Your task to perform on an android device: turn off javascript in the chrome app Image 0: 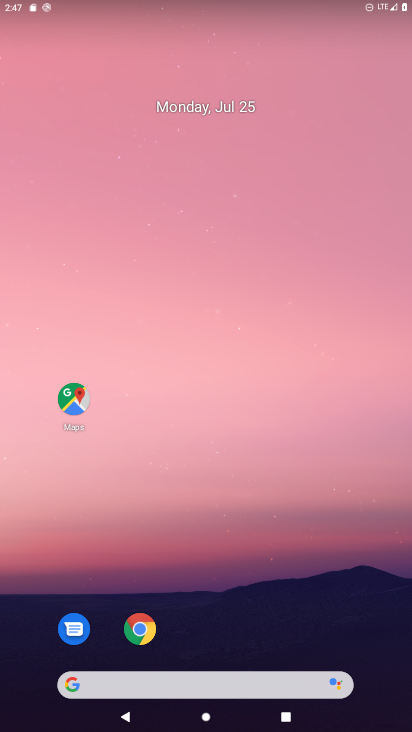
Step 0: click (152, 625)
Your task to perform on an android device: turn off javascript in the chrome app Image 1: 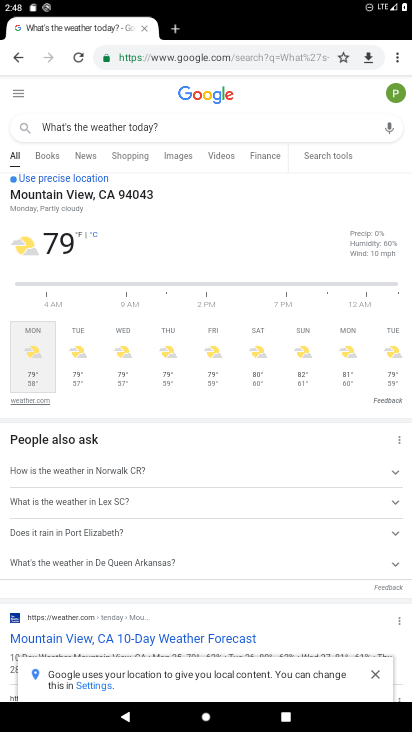
Step 1: drag from (393, 60) to (298, 348)
Your task to perform on an android device: turn off javascript in the chrome app Image 2: 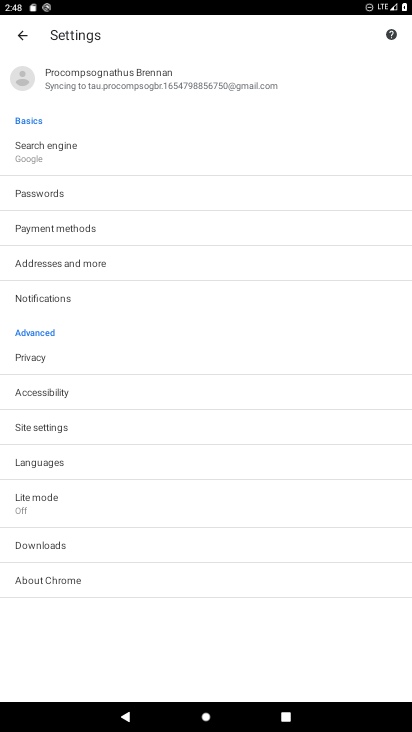
Step 2: click (50, 433)
Your task to perform on an android device: turn off javascript in the chrome app Image 3: 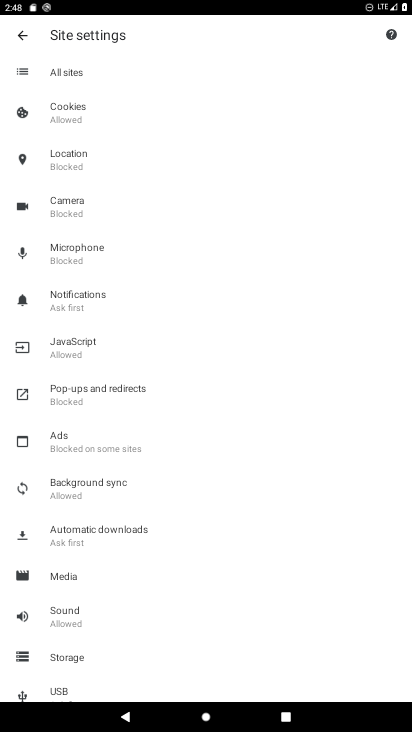
Step 3: click (60, 345)
Your task to perform on an android device: turn off javascript in the chrome app Image 4: 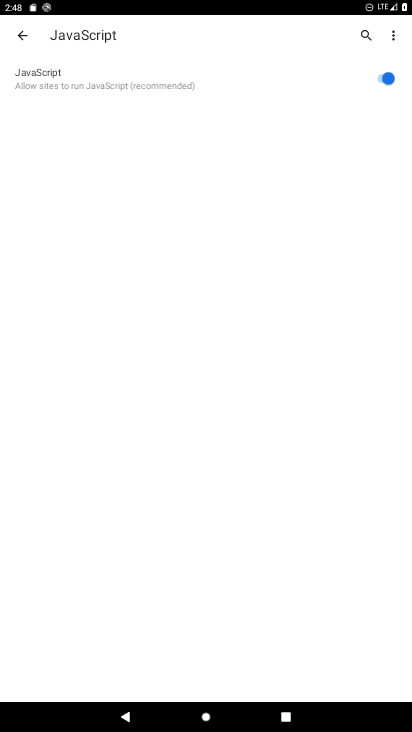
Step 4: click (315, 83)
Your task to perform on an android device: turn off javascript in the chrome app Image 5: 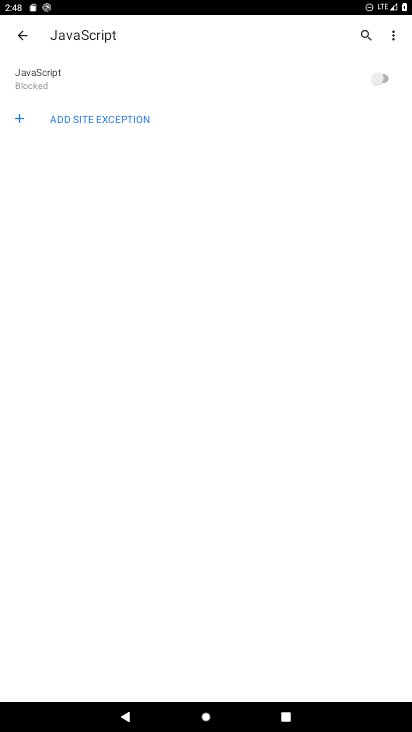
Step 5: task complete